Your task to perform on an android device: Open the calendar app, open the side menu, and click the "Day" option Image 0: 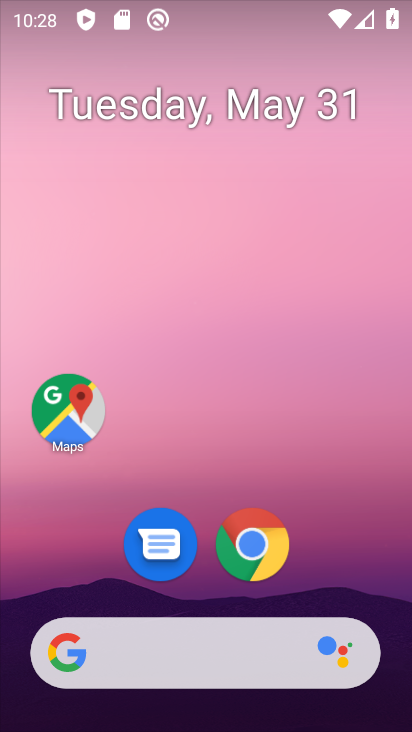
Step 0: drag from (221, 591) to (237, 174)
Your task to perform on an android device: Open the calendar app, open the side menu, and click the "Day" option Image 1: 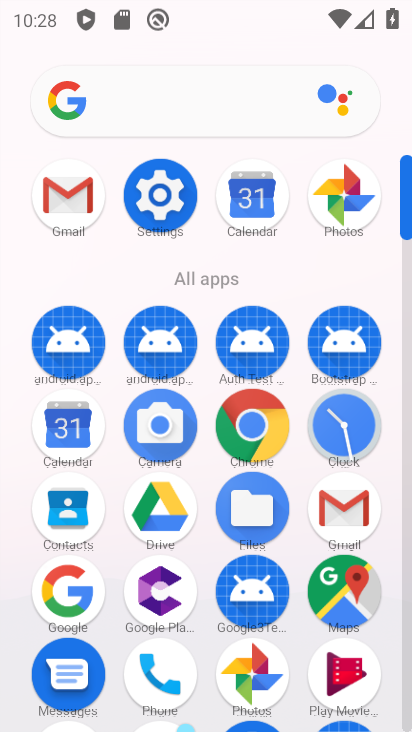
Step 1: click (81, 425)
Your task to perform on an android device: Open the calendar app, open the side menu, and click the "Day" option Image 2: 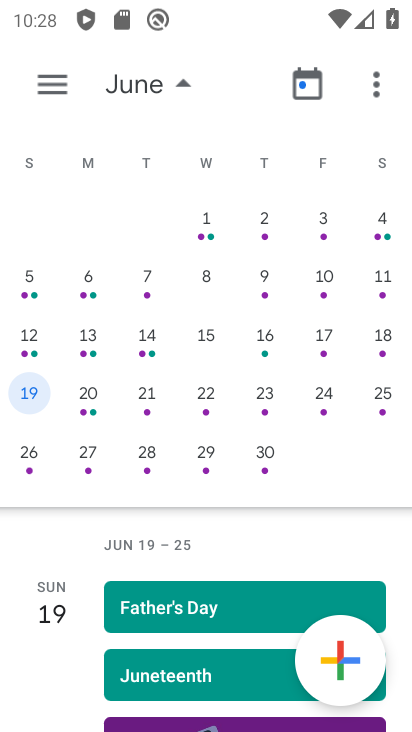
Step 2: click (51, 91)
Your task to perform on an android device: Open the calendar app, open the side menu, and click the "Day" option Image 3: 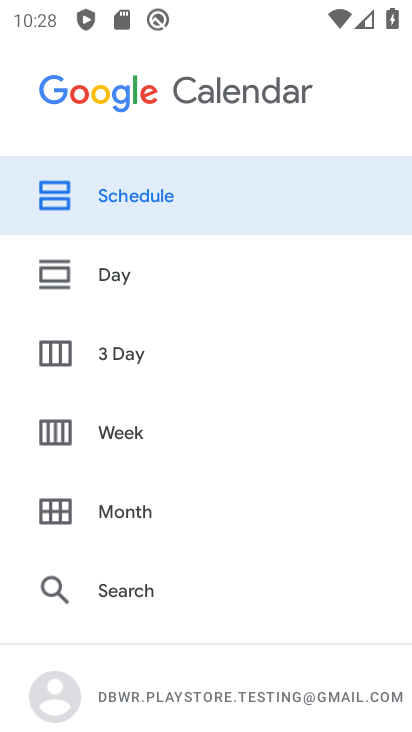
Step 3: click (140, 268)
Your task to perform on an android device: Open the calendar app, open the side menu, and click the "Day" option Image 4: 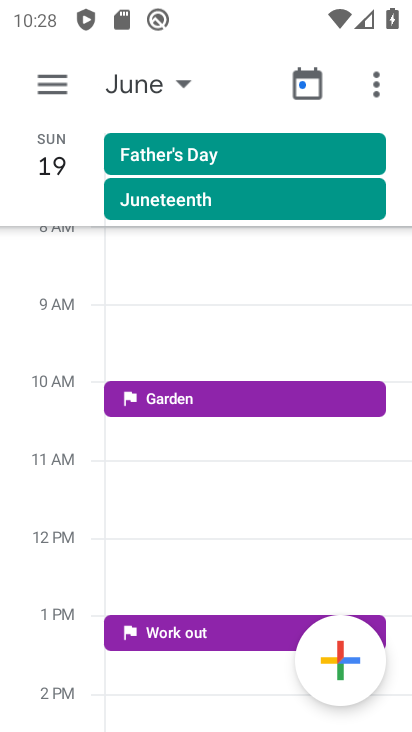
Step 4: click (46, 81)
Your task to perform on an android device: Open the calendar app, open the side menu, and click the "Day" option Image 5: 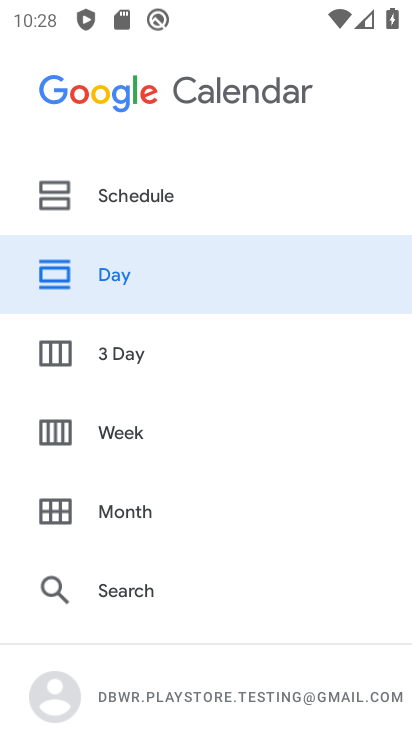
Step 5: task complete